Your task to perform on an android device: Do I have any events tomorrow? Image 0: 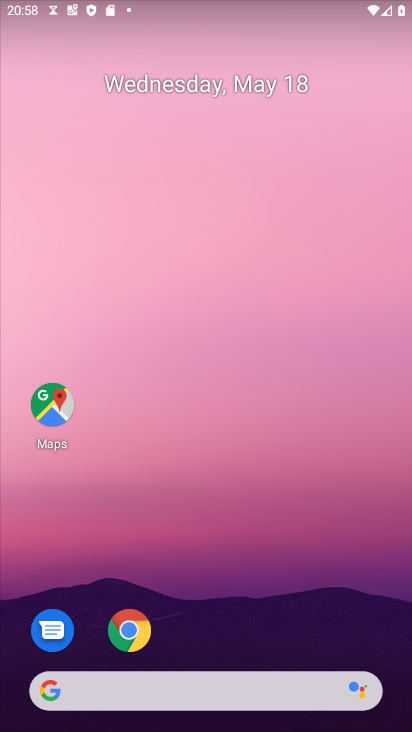
Step 0: press home button
Your task to perform on an android device: Do I have any events tomorrow? Image 1: 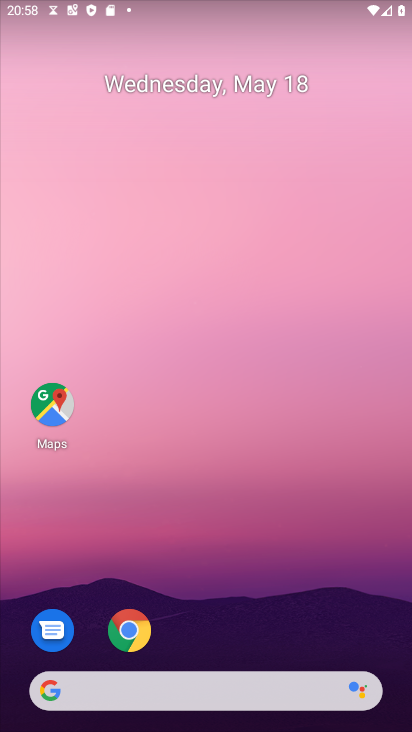
Step 1: drag from (157, 698) to (316, 233)
Your task to perform on an android device: Do I have any events tomorrow? Image 2: 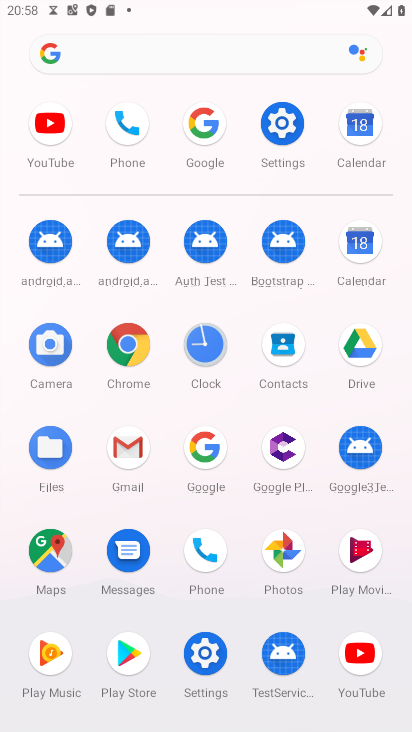
Step 2: click (365, 238)
Your task to perform on an android device: Do I have any events tomorrow? Image 3: 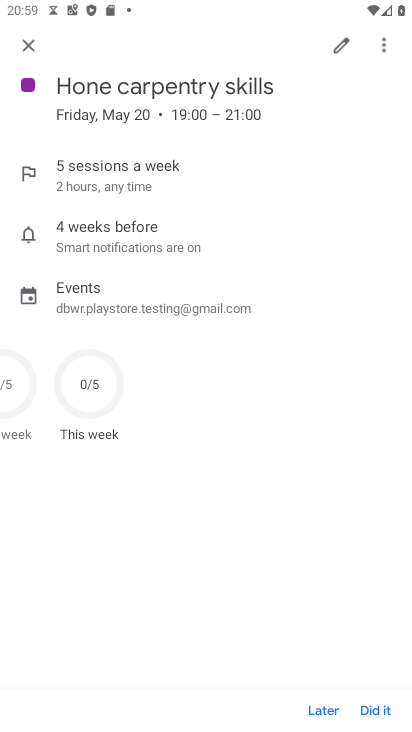
Step 3: click (28, 48)
Your task to perform on an android device: Do I have any events tomorrow? Image 4: 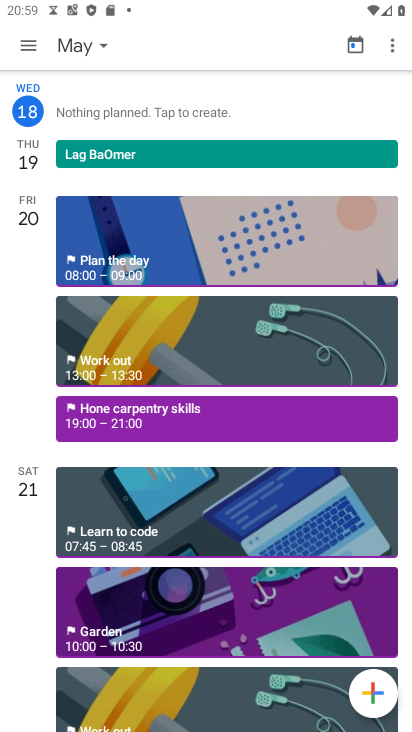
Step 4: click (76, 44)
Your task to perform on an android device: Do I have any events tomorrow? Image 5: 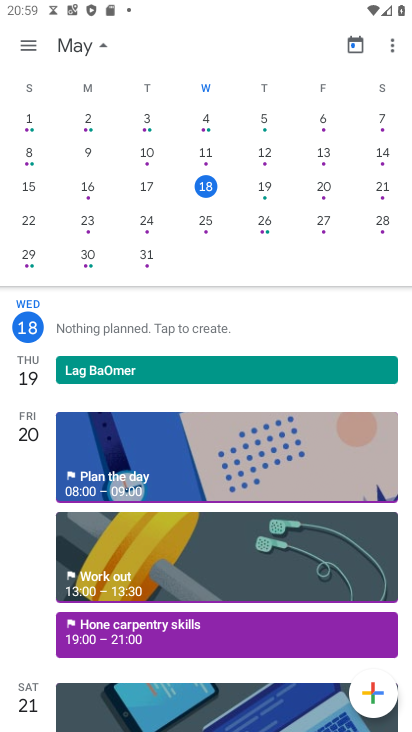
Step 5: click (262, 185)
Your task to perform on an android device: Do I have any events tomorrow? Image 6: 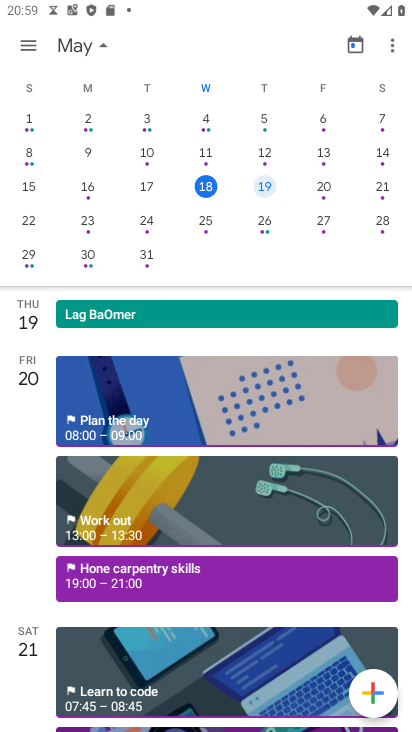
Step 6: click (29, 42)
Your task to perform on an android device: Do I have any events tomorrow? Image 7: 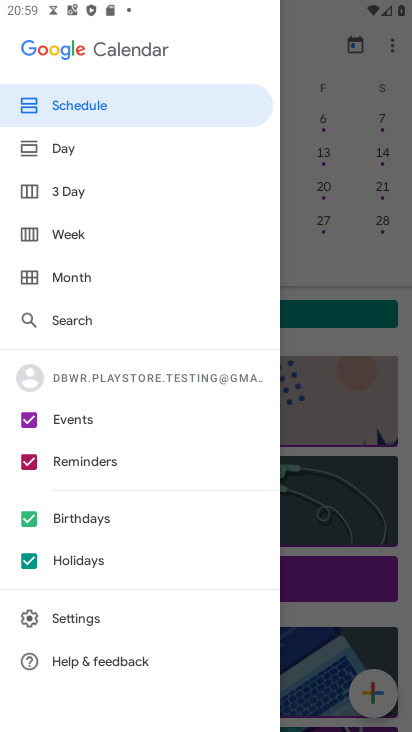
Step 7: click (123, 107)
Your task to perform on an android device: Do I have any events tomorrow? Image 8: 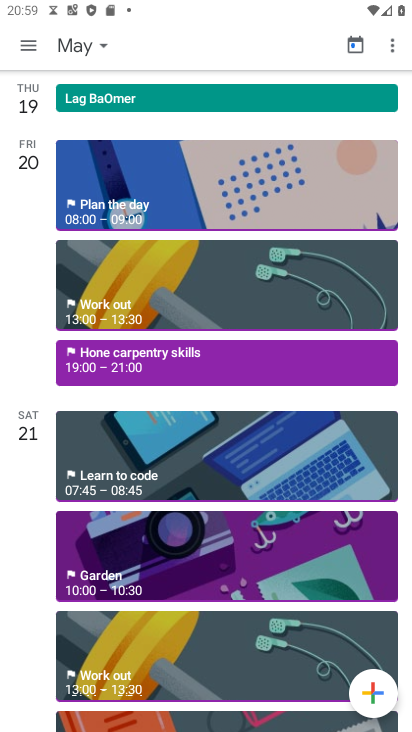
Step 8: click (252, 106)
Your task to perform on an android device: Do I have any events tomorrow? Image 9: 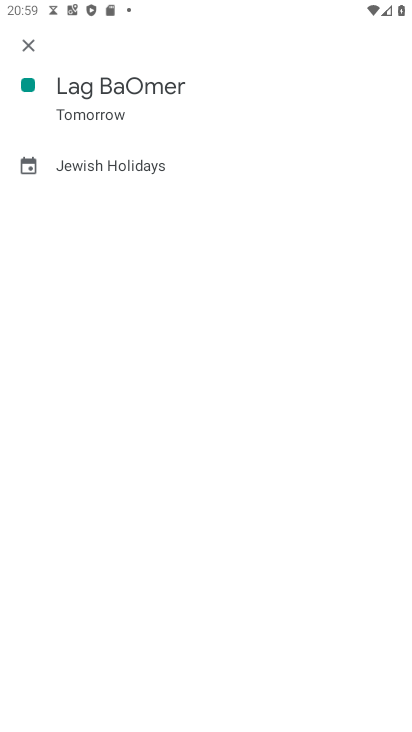
Step 9: task complete